Your task to perform on an android device: turn smart compose on in the gmail app Image 0: 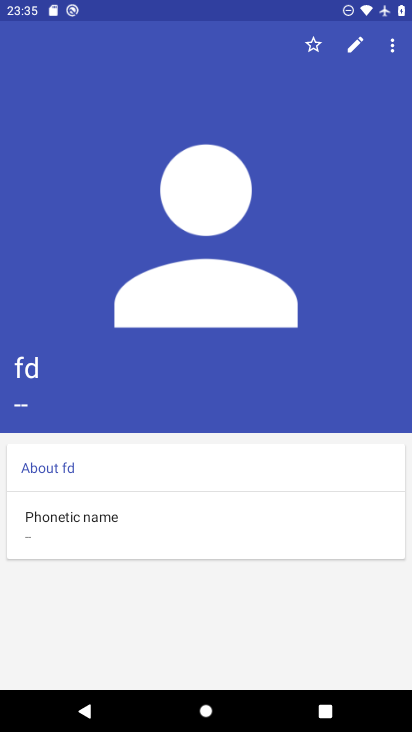
Step 0: press home button
Your task to perform on an android device: turn smart compose on in the gmail app Image 1: 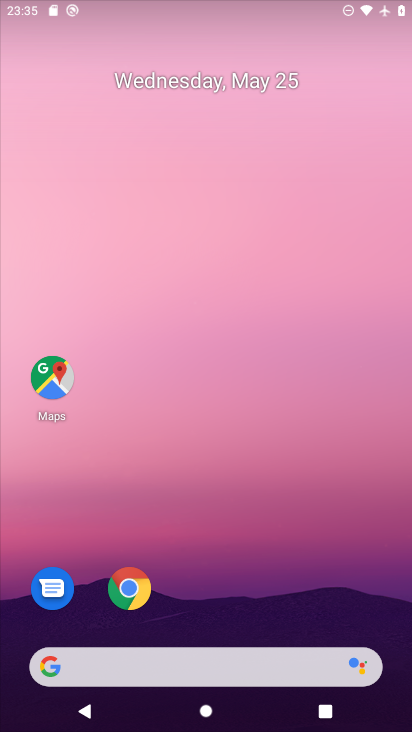
Step 1: drag from (268, 520) to (272, 30)
Your task to perform on an android device: turn smart compose on in the gmail app Image 2: 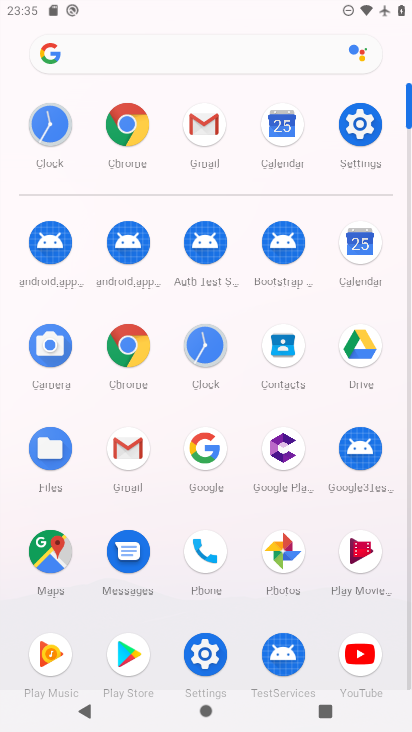
Step 2: click (209, 133)
Your task to perform on an android device: turn smart compose on in the gmail app Image 3: 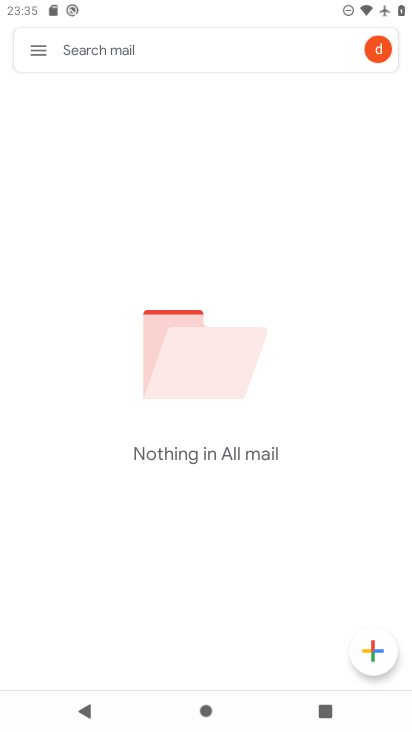
Step 3: click (51, 48)
Your task to perform on an android device: turn smart compose on in the gmail app Image 4: 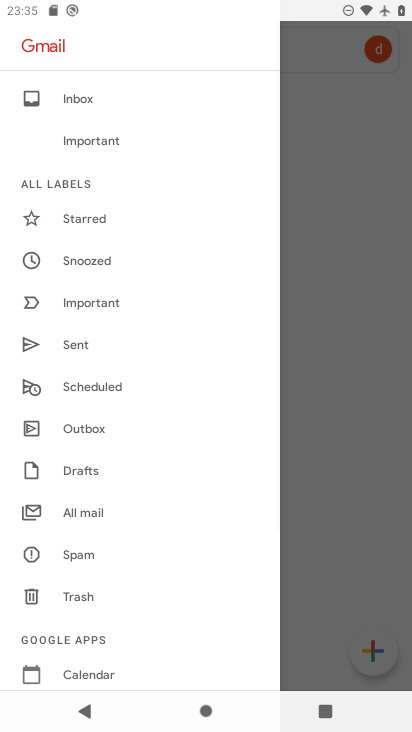
Step 4: drag from (113, 646) to (221, 256)
Your task to perform on an android device: turn smart compose on in the gmail app Image 5: 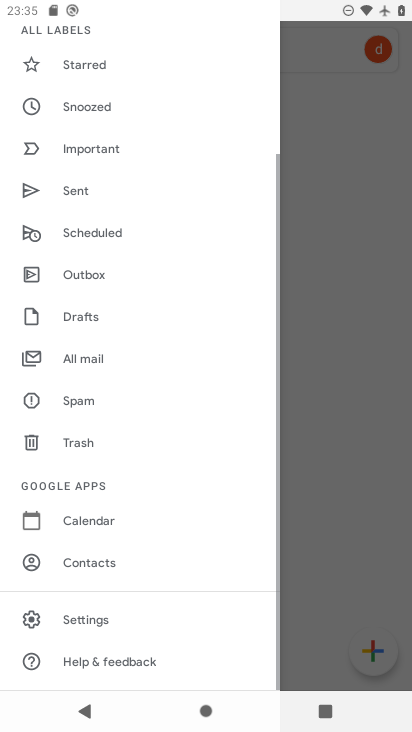
Step 5: click (130, 620)
Your task to perform on an android device: turn smart compose on in the gmail app Image 6: 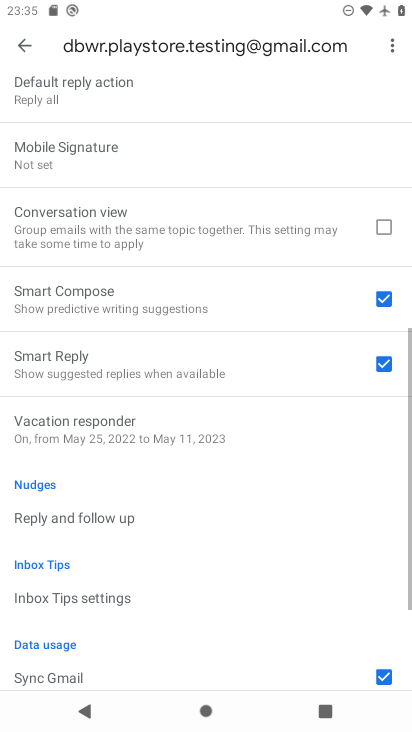
Step 6: task complete